Your task to perform on an android device: check the backup settings in the google photos Image 0: 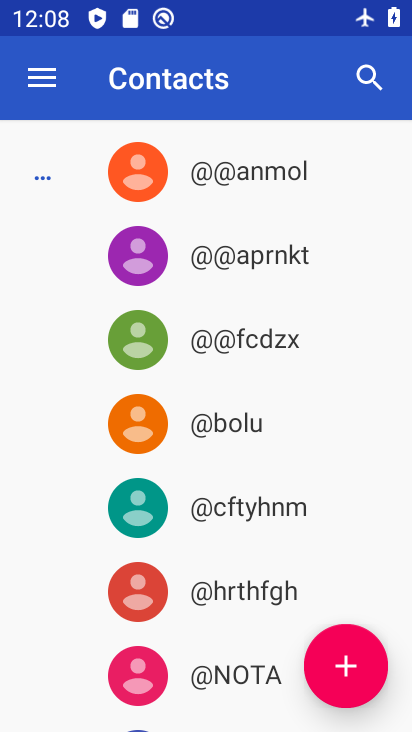
Step 0: press home button
Your task to perform on an android device: check the backup settings in the google photos Image 1: 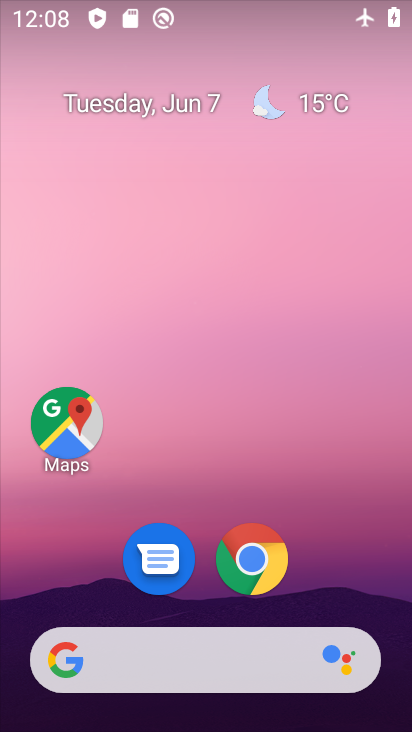
Step 1: drag from (393, 619) to (371, 218)
Your task to perform on an android device: check the backup settings in the google photos Image 2: 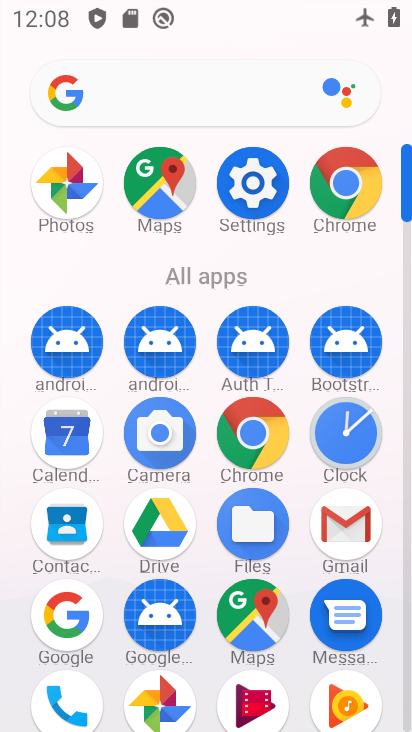
Step 2: click (407, 684)
Your task to perform on an android device: check the backup settings in the google photos Image 3: 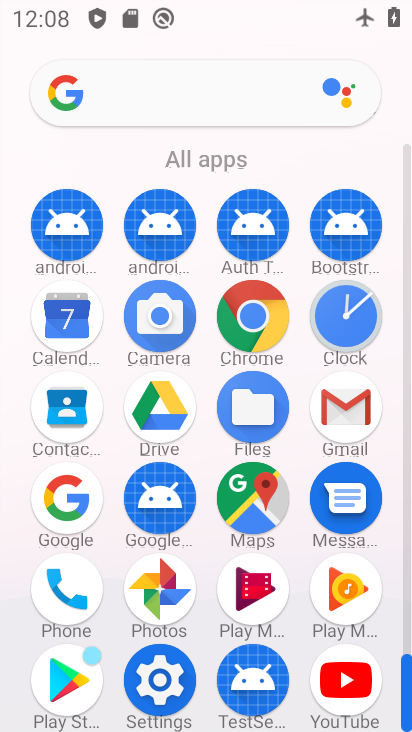
Step 3: click (159, 589)
Your task to perform on an android device: check the backup settings in the google photos Image 4: 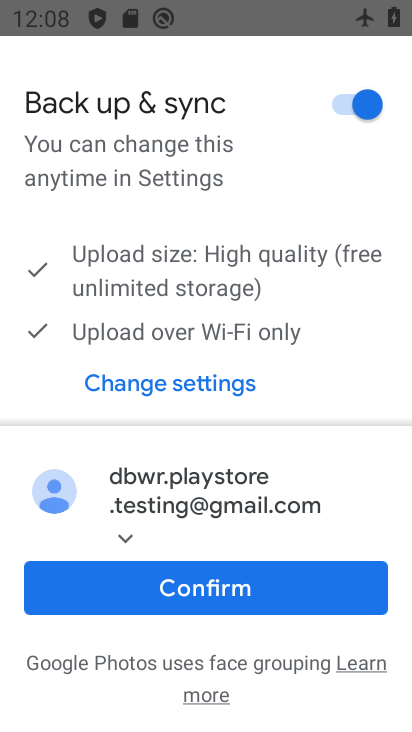
Step 4: click (195, 602)
Your task to perform on an android device: check the backup settings in the google photos Image 5: 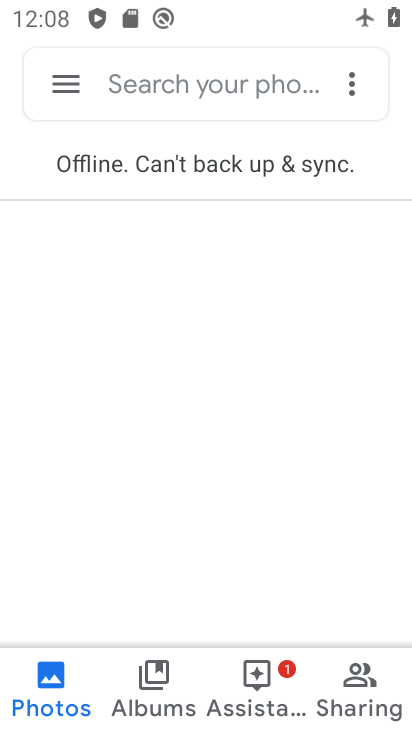
Step 5: click (59, 87)
Your task to perform on an android device: check the backup settings in the google photos Image 6: 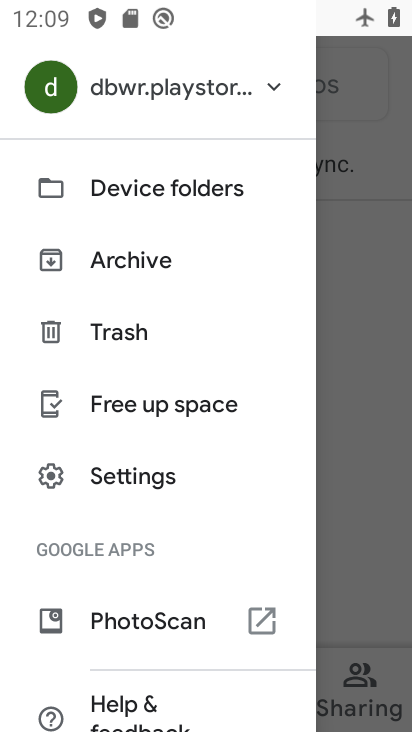
Step 6: click (129, 481)
Your task to perform on an android device: check the backup settings in the google photos Image 7: 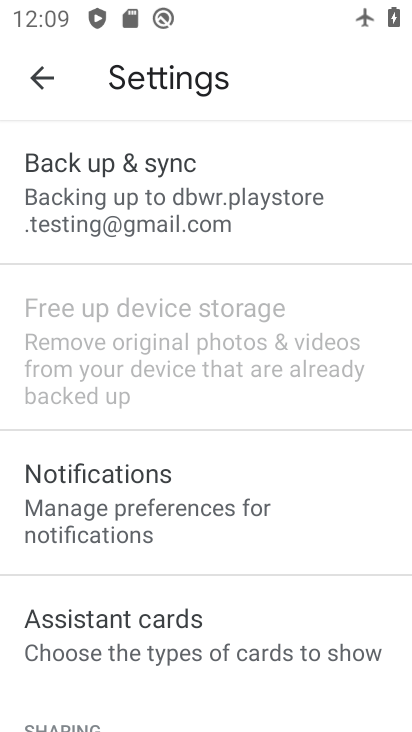
Step 7: click (101, 180)
Your task to perform on an android device: check the backup settings in the google photos Image 8: 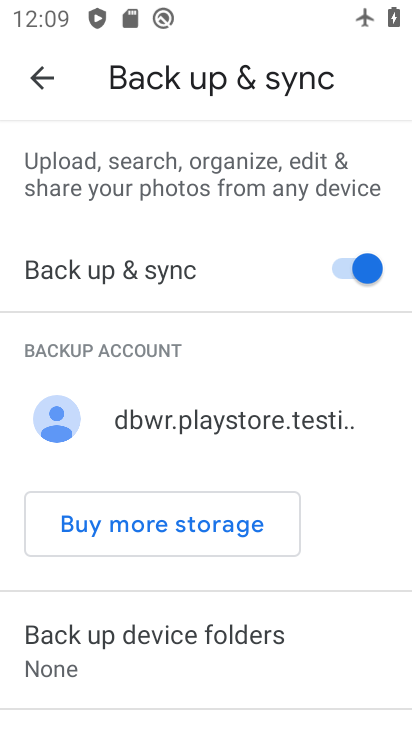
Step 8: task complete